Your task to perform on an android device: Check the news Image 0: 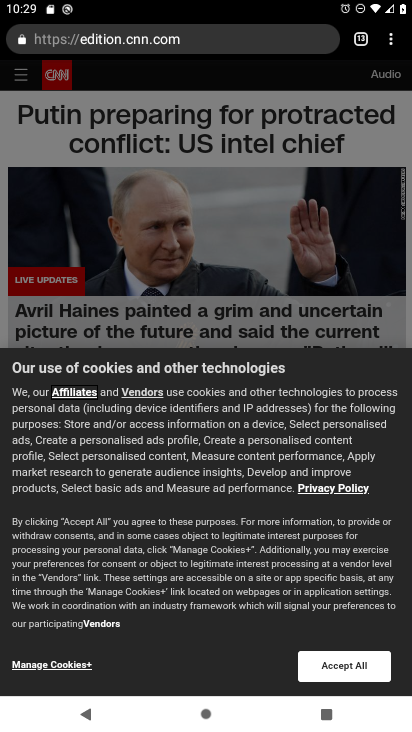
Step 0: press home button
Your task to perform on an android device: Check the news Image 1: 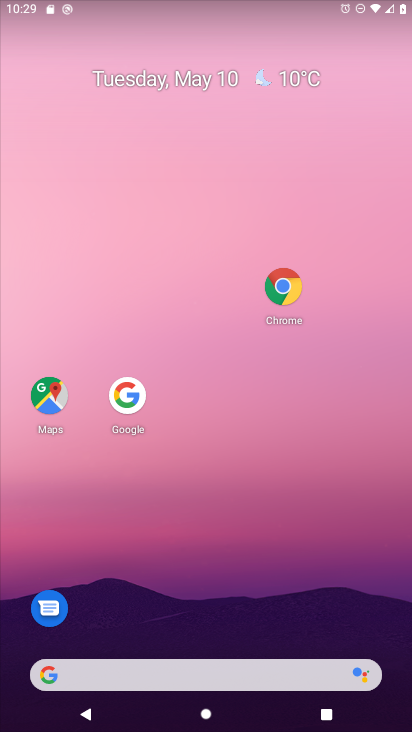
Step 1: click (50, 673)
Your task to perform on an android device: Check the news Image 2: 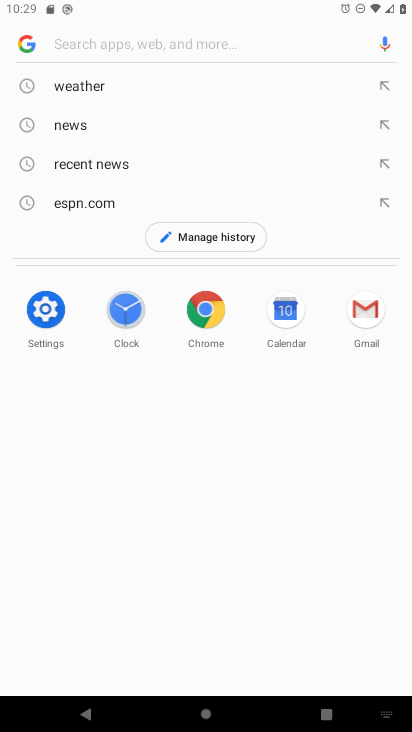
Step 2: click (87, 121)
Your task to perform on an android device: Check the news Image 3: 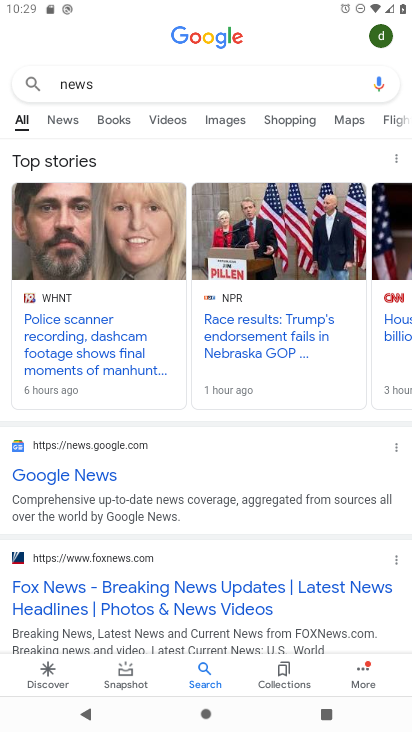
Step 3: click (67, 118)
Your task to perform on an android device: Check the news Image 4: 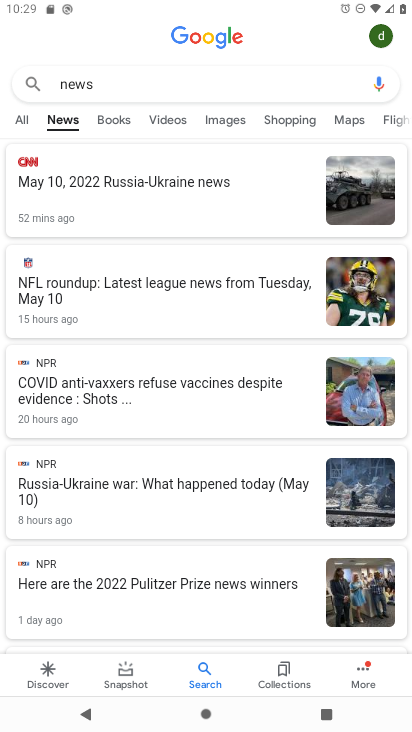
Step 4: task complete